Your task to perform on an android device: install app "AliExpress" Image 0: 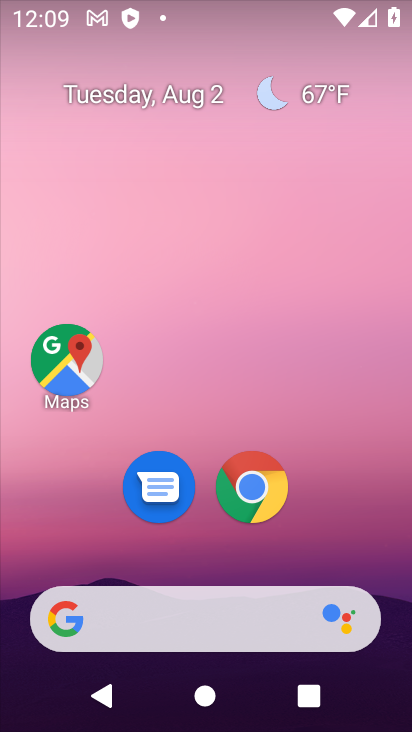
Step 0: drag from (166, 95) to (399, 627)
Your task to perform on an android device: install app "AliExpress" Image 1: 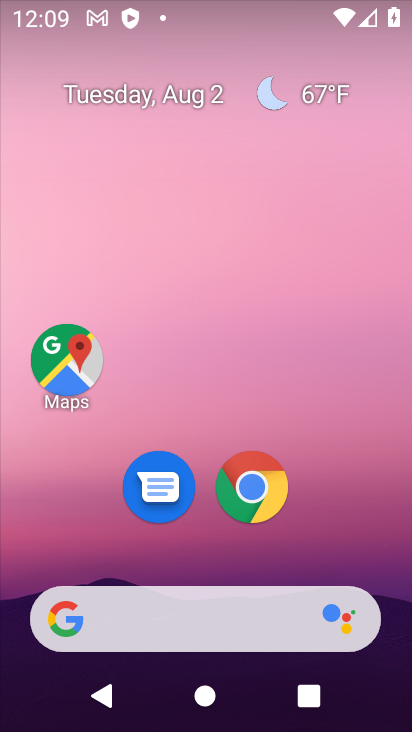
Step 1: drag from (259, 625) to (375, 136)
Your task to perform on an android device: install app "AliExpress" Image 2: 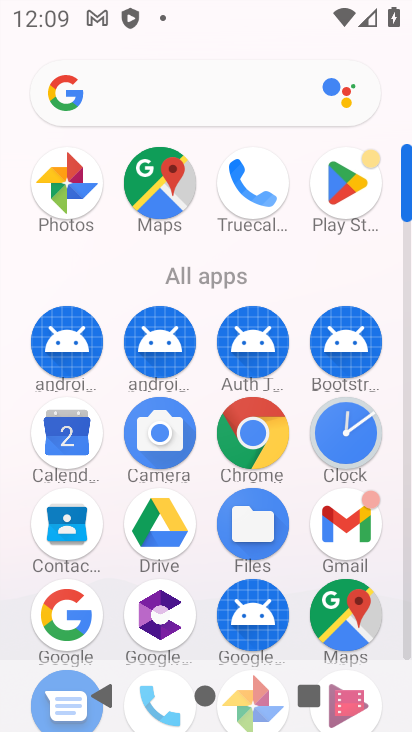
Step 2: click (353, 183)
Your task to perform on an android device: install app "AliExpress" Image 3: 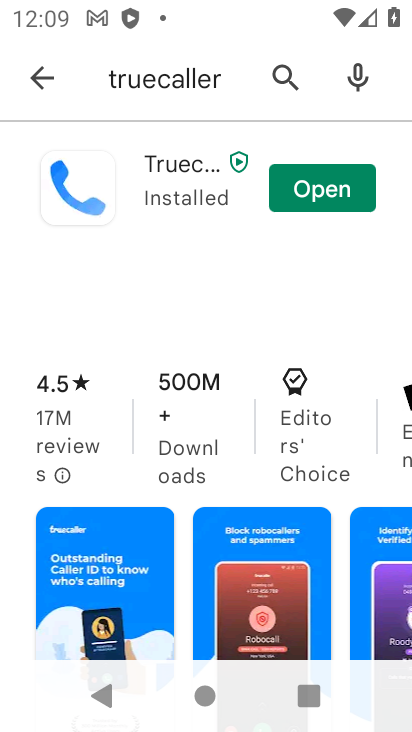
Step 3: click (35, 73)
Your task to perform on an android device: install app "AliExpress" Image 4: 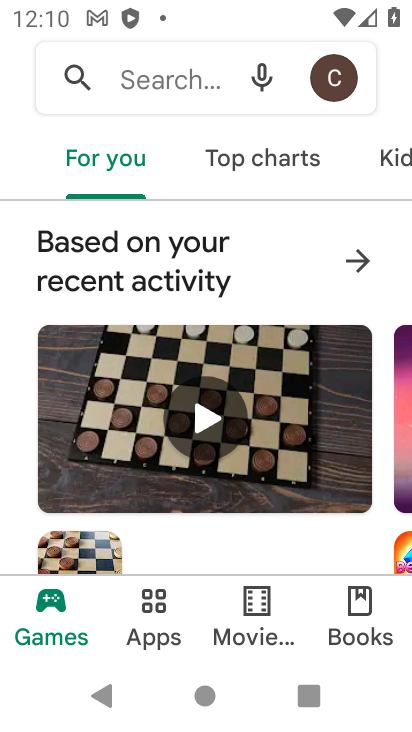
Step 4: click (76, 76)
Your task to perform on an android device: install app "AliExpress" Image 5: 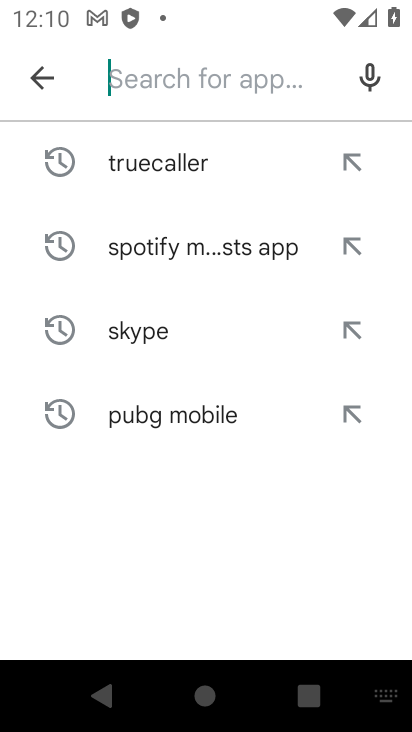
Step 5: type "AliExpress"
Your task to perform on an android device: install app "AliExpress" Image 6: 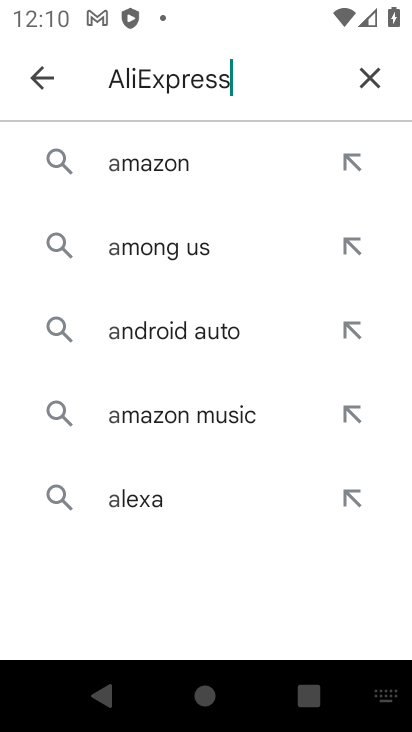
Step 6: type ""
Your task to perform on an android device: install app "AliExpress" Image 7: 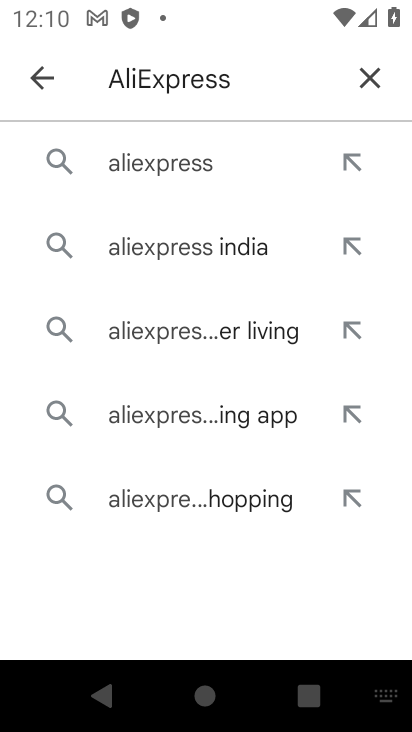
Step 7: click (177, 171)
Your task to perform on an android device: install app "AliExpress" Image 8: 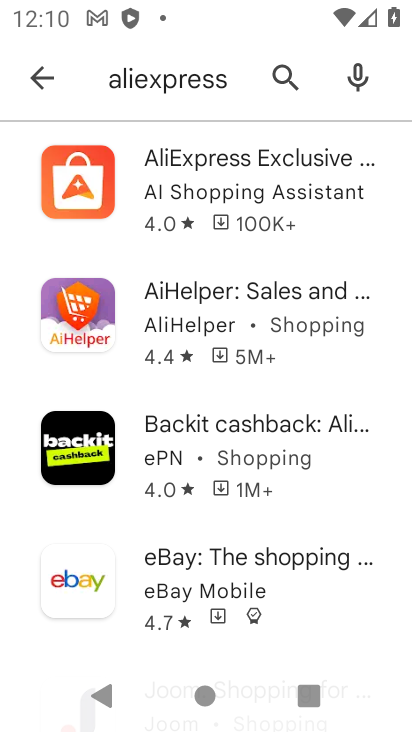
Step 8: click (254, 199)
Your task to perform on an android device: install app "AliExpress" Image 9: 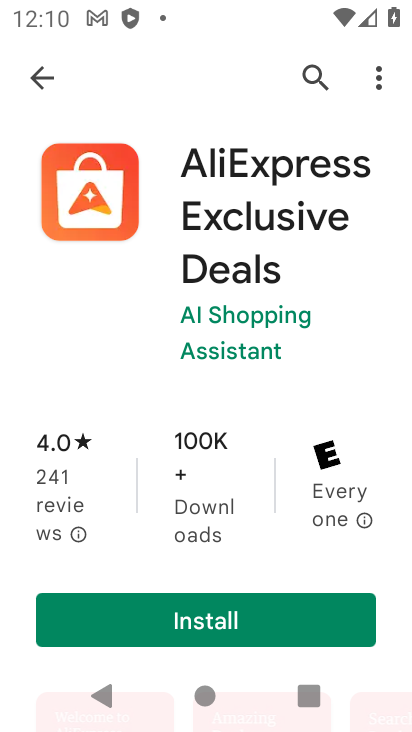
Step 9: click (184, 605)
Your task to perform on an android device: install app "AliExpress" Image 10: 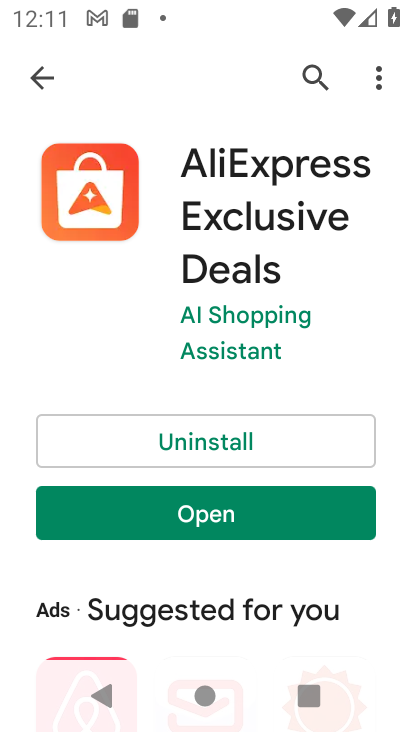
Step 10: task complete